Your task to perform on an android device: Go to calendar. Show me events next week Image 0: 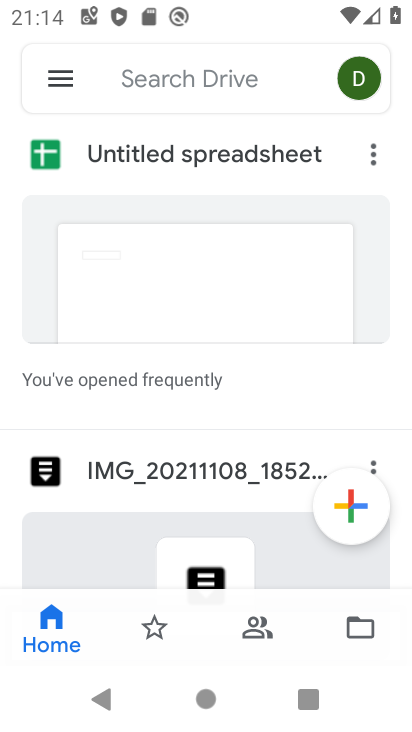
Step 0: press home button
Your task to perform on an android device: Go to calendar. Show me events next week Image 1: 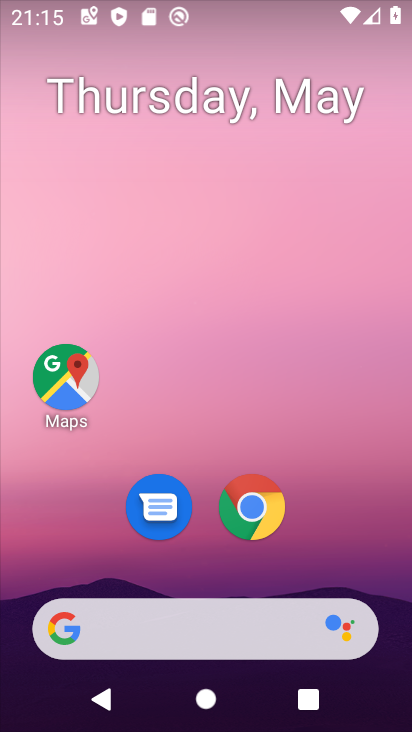
Step 1: drag from (281, 664) to (209, 332)
Your task to perform on an android device: Go to calendar. Show me events next week Image 2: 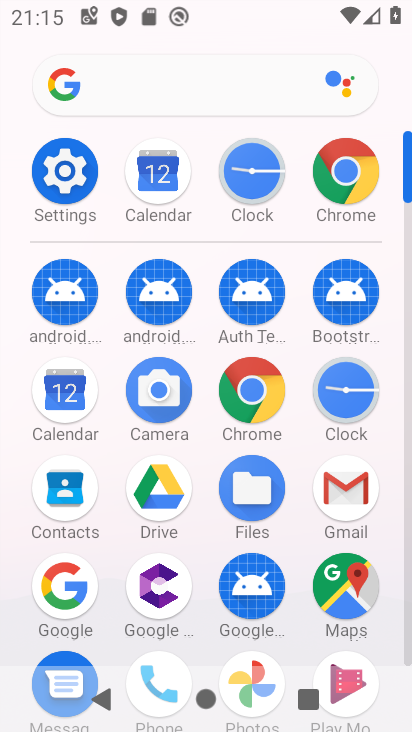
Step 2: click (66, 404)
Your task to perform on an android device: Go to calendar. Show me events next week Image 3: 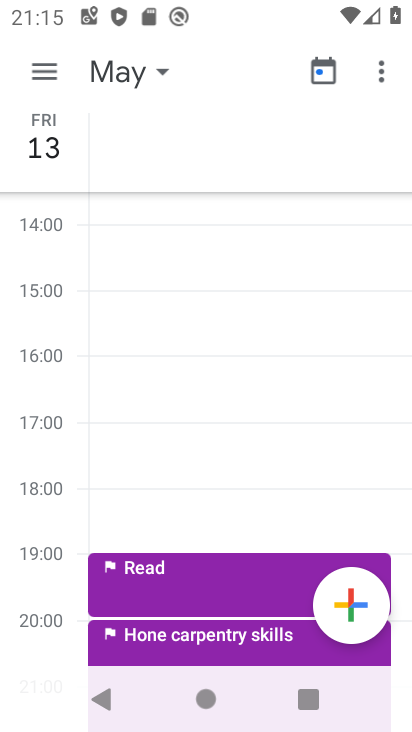
Step 3: click (47, 84)
Your task to perform on an android device: Go to calendar. Show me events next week Image 4: 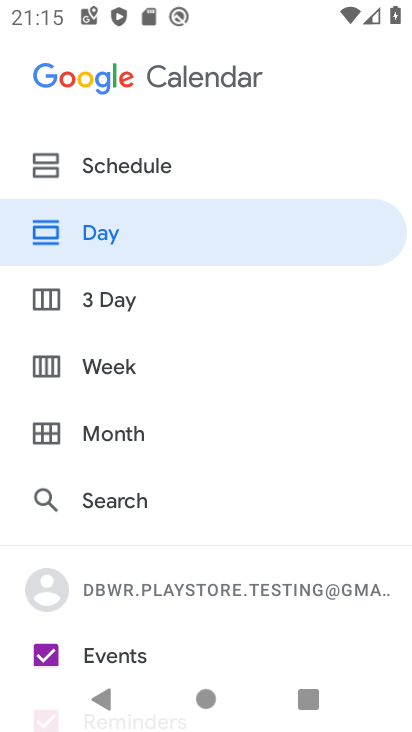
Step 4: click (126, 439)
Your task to perform on an android device: Go to calendar. Show me events next week Image 5: 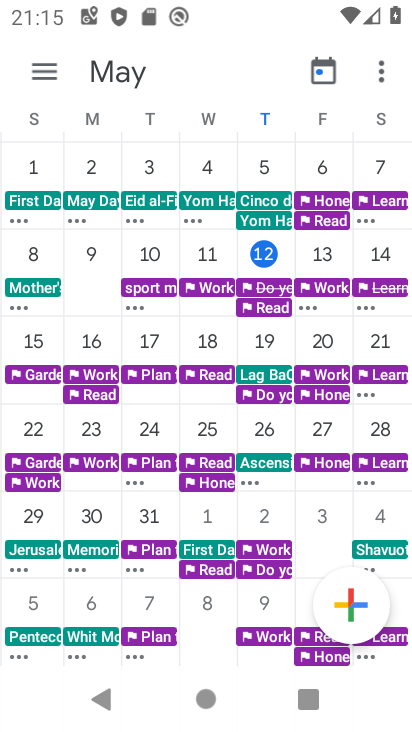
Step 5: click (86, 334)
Your task to perform on an android device: Go to calendar. Show me events next week Image 6: 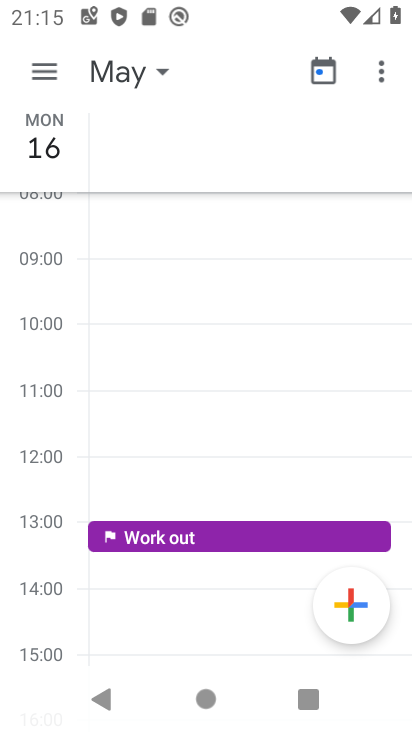
Step 6: click (40, 55)
Your task to perform on an android device: Go to calendar. Show me events next week Image 7: 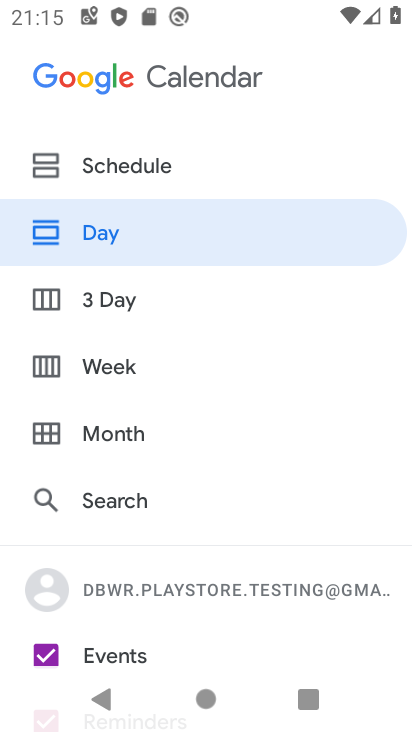
Step 7: click (138, 367)
Your task to perform on an android device: Go to calendar. Show me events next week Image 8: 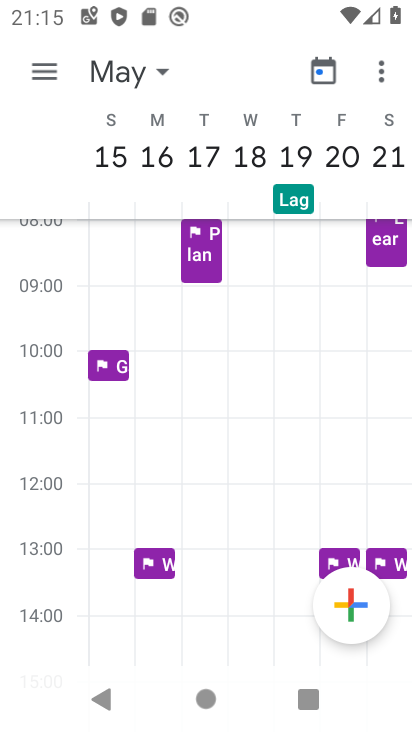
Step 8: task complete